Your task to perform on an android device: check google app version Image 0: 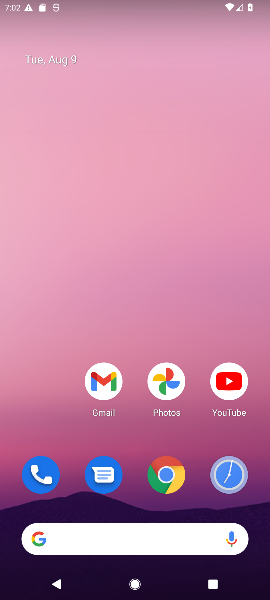
Step 0: drag from (173, 440) to (83, 111)
Your task to perform on an android device: check google app version Image 1: 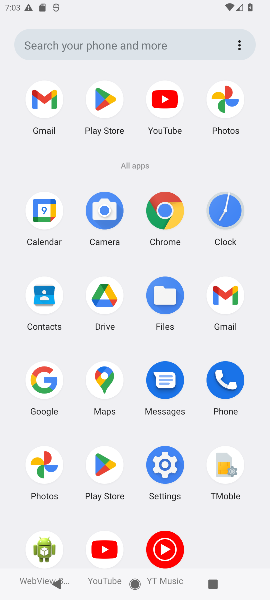
Step 1: click (48, 386)
Your task to perform on an android device: check google app version Image 2: 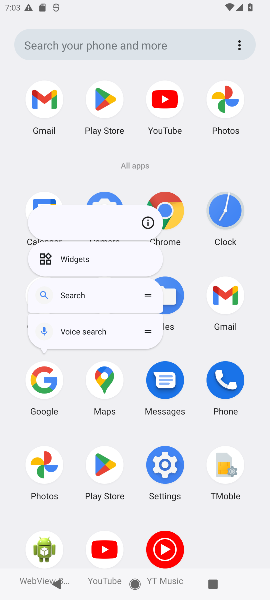
Step 2: click (144, 221)
Your task to perform on an android device: check google app version Image 3: 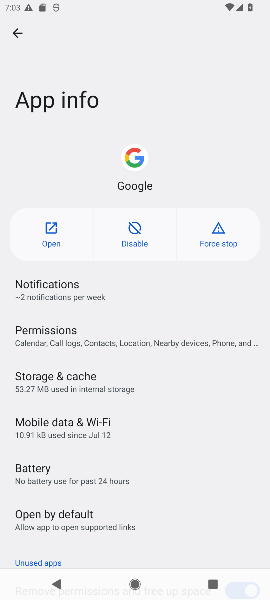
Step 3: drag from (219, 488) to (184, 63)
Your task to perform on an android device: check google app version Image 4: 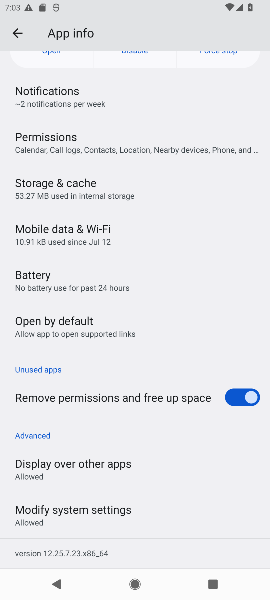
Step 4: drag from (239, 438) to (215, 169)
Your task to perform on an android device: check google app version Image 5: 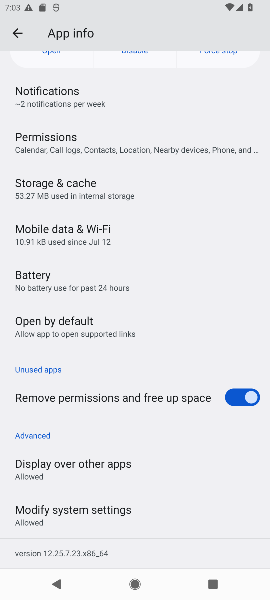
Step 5: click (161, 559)
Your task to perform on an android device: check google app version Image 6: 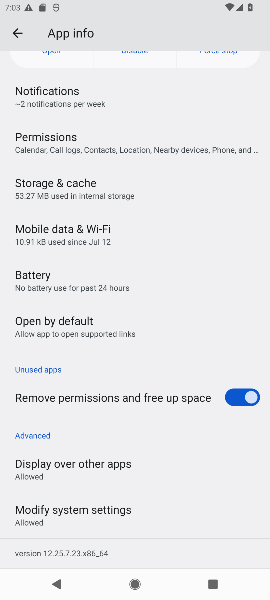
Step 6: task complete